Your task to perform on an android device: When is my next meeting? Image 0: 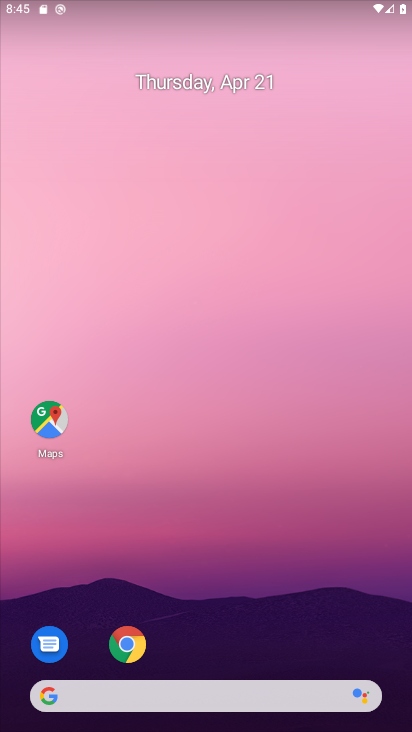
Step 0: drag from (253, 549) to (144, 18)
Your task to perform on an android device: When is my next meeting? Image 1: 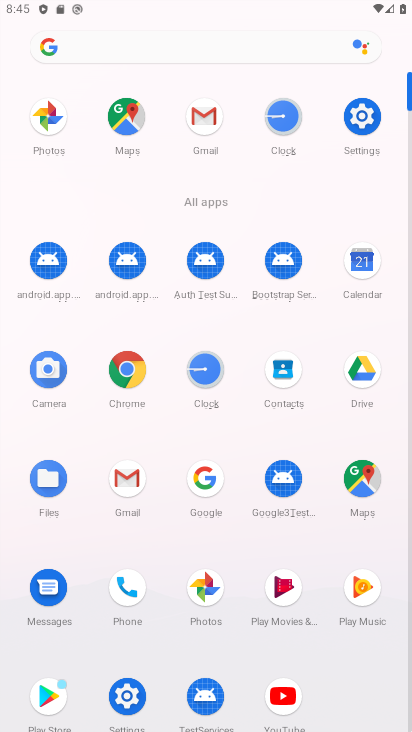
Step 1: click (363, 260)
Your task to perform on an android device: When is my next meeting? Image 2: 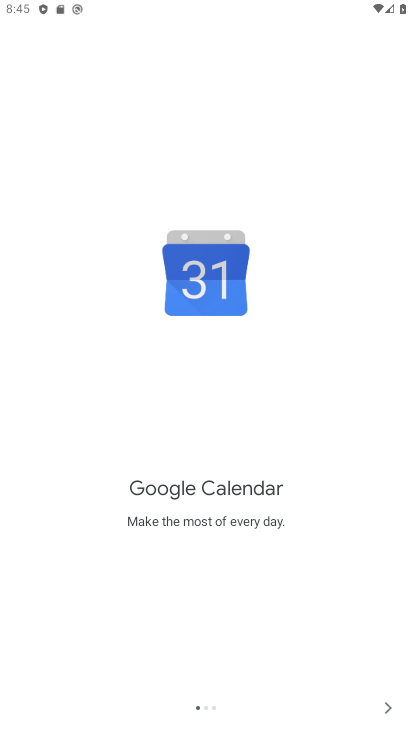
Step 2: click (381, 709)
Your task to perform on an android device: When is my next meeting? Image 3: 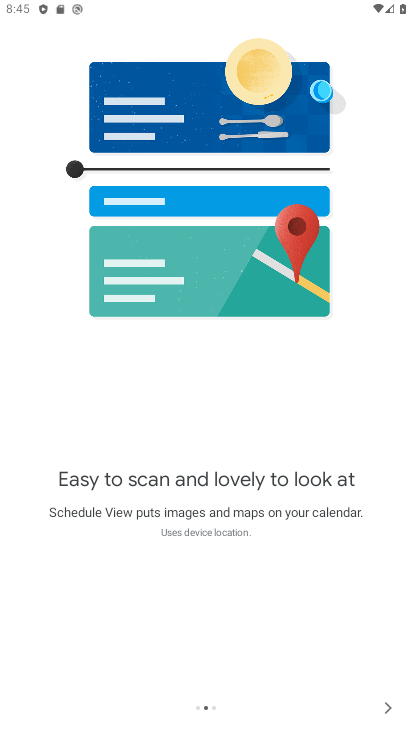
Step 3: click (386, 704)
Your task to perform on an android device: When is my next meeting? Image 4: 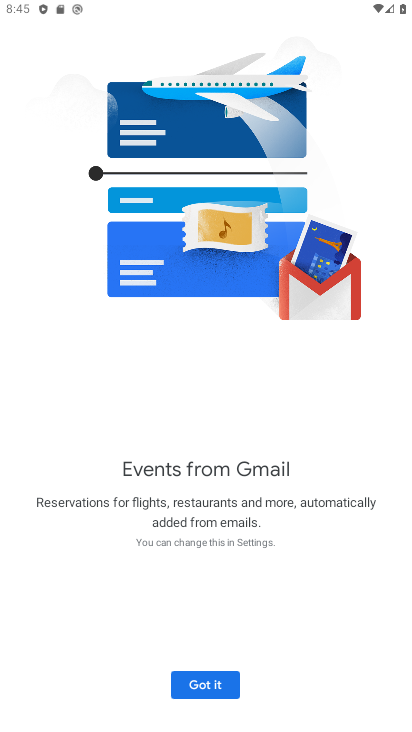
Step 4: click (186, 659)
Your task to perform on an android device: When is my next meeting? Image 5: 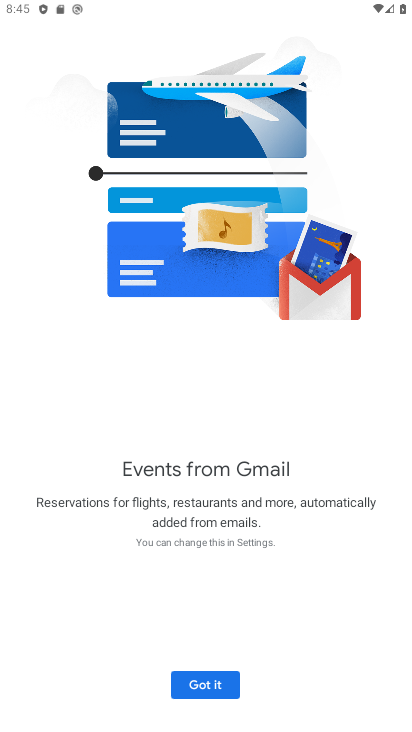
Step 5: click (171, 685)
Your task to perform on an android device: When is my next meeting? Image 6: 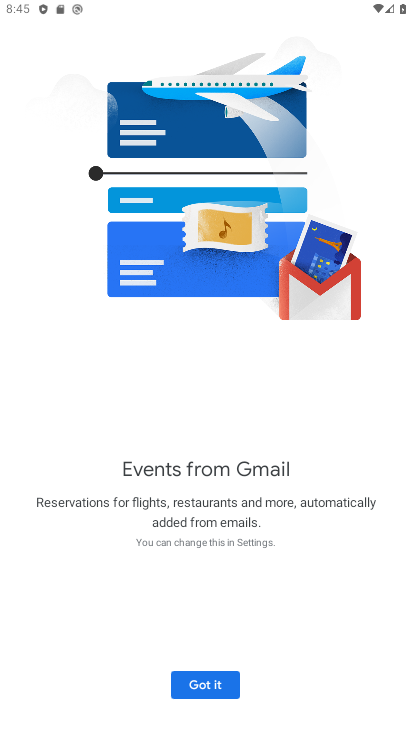
Step 6: click (188, 680)
Your task to perform on an android device: When is my next meeting? Image 7: 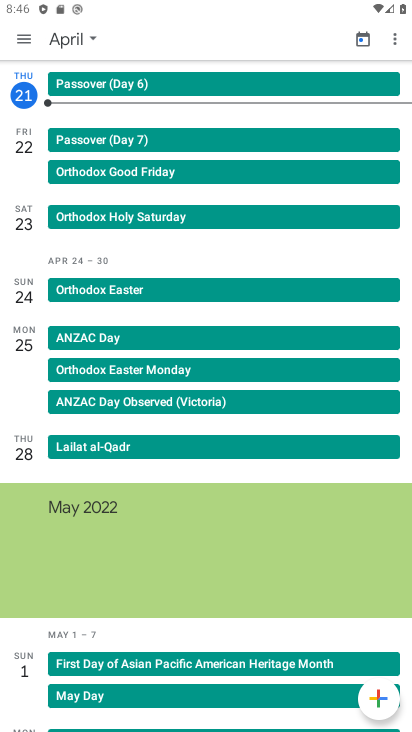
Step 7: task complete